Your task to perform on an android device: Search for macbook pro 15 inch on ebay.com, select the first entry, add it to the cart, then select checkout. Image 0: 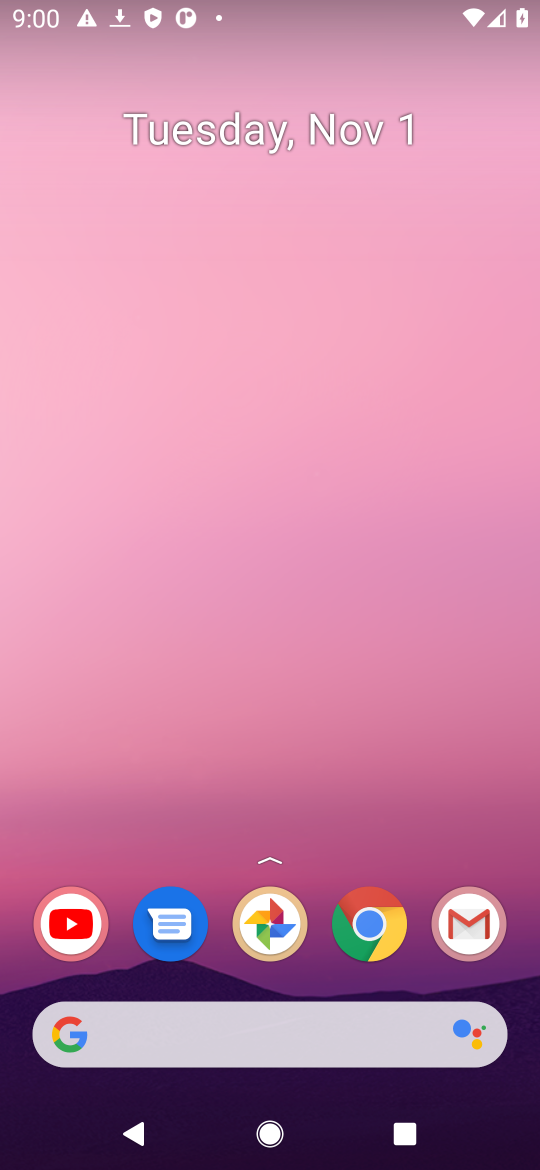
Step 0: click (371, 926)
Your task to perform on an android device: Search for macbook pro 15 inch on ebay.com, select the first entry, add it to the cart, then select checkout. Image 1: 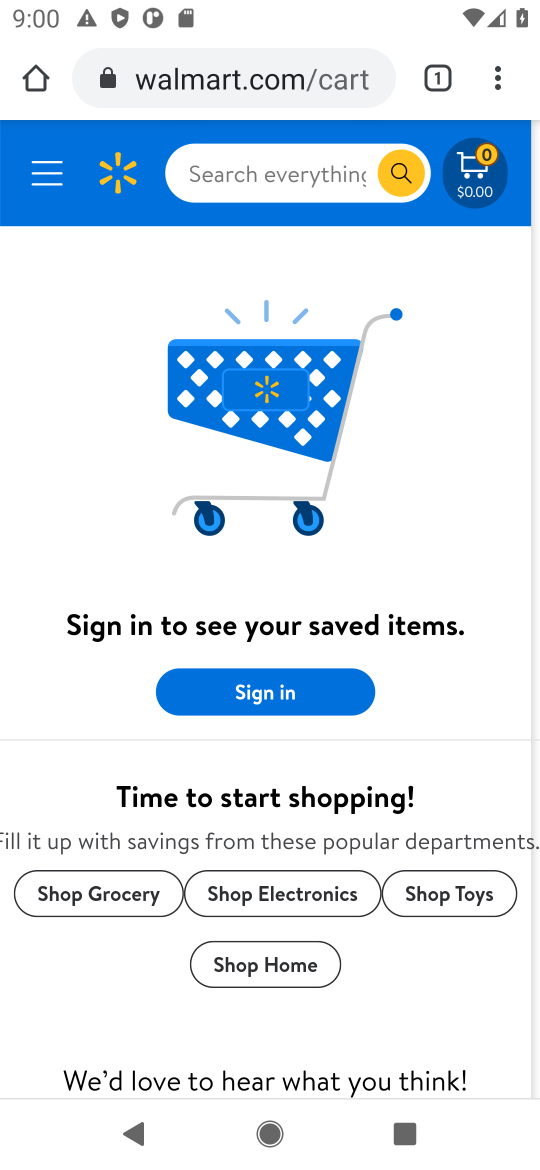
Step 1: click (291, 75)
Your task to perform on an android device: Search for macbook pro 15 inch on ebay.com, select the first entry, add it to the cart, then select checkout. Image 2: 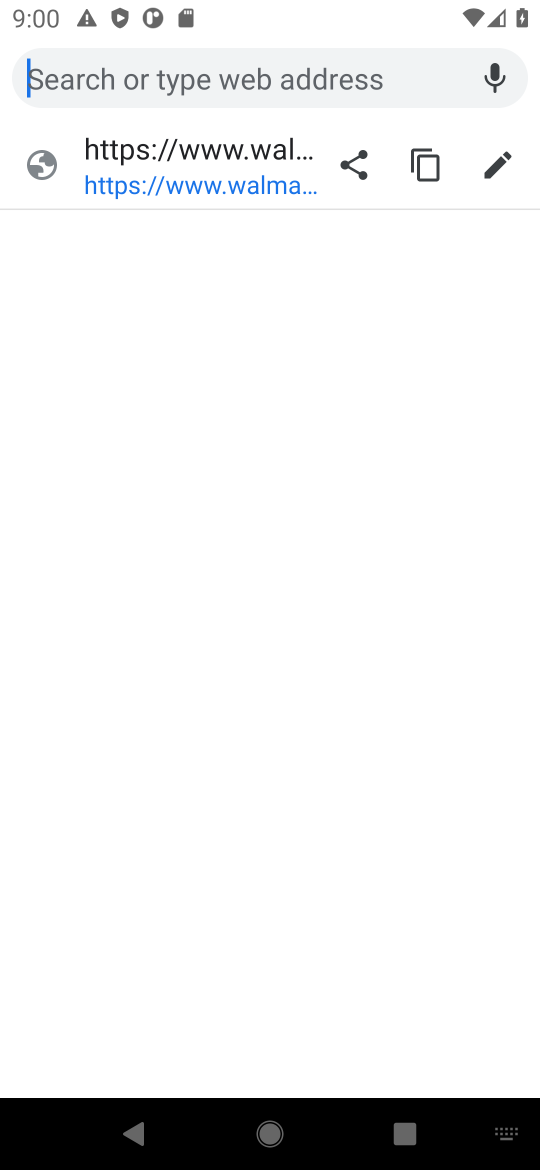
Step 2: type "ebay"
Your task to perform on an android device: Search for macbook pro 15 inch on ebay.com, select the first entry, add it to the cart, then select checkout. Image 3: 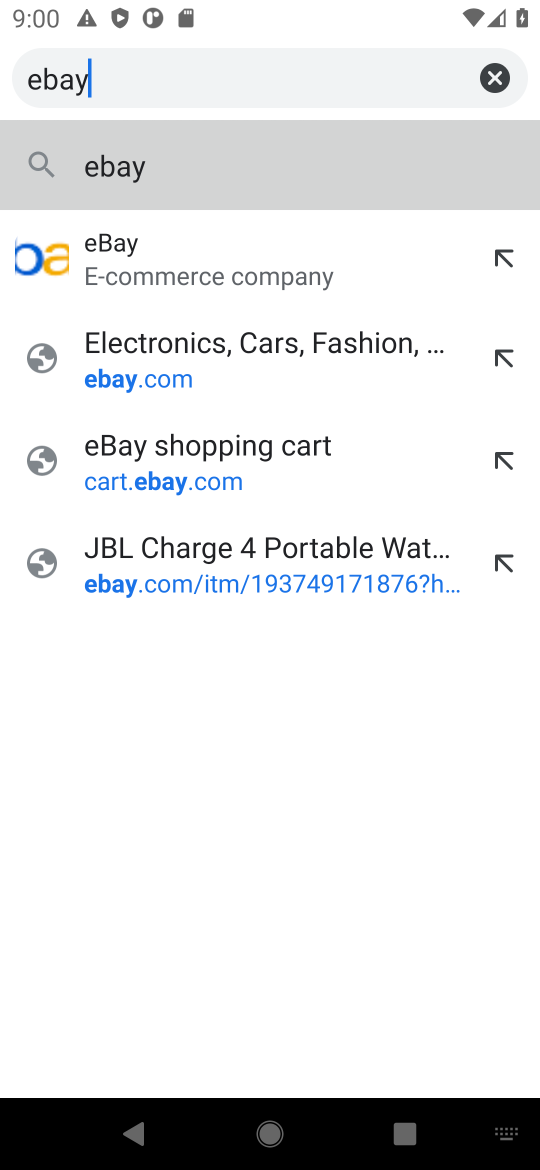
Step 3: click (163, 173)
Your task to perform on an android device: Search for macbook pro 15 inch on ebay.com, select the first entry, add it to the cart, then select checkout. Image 4: 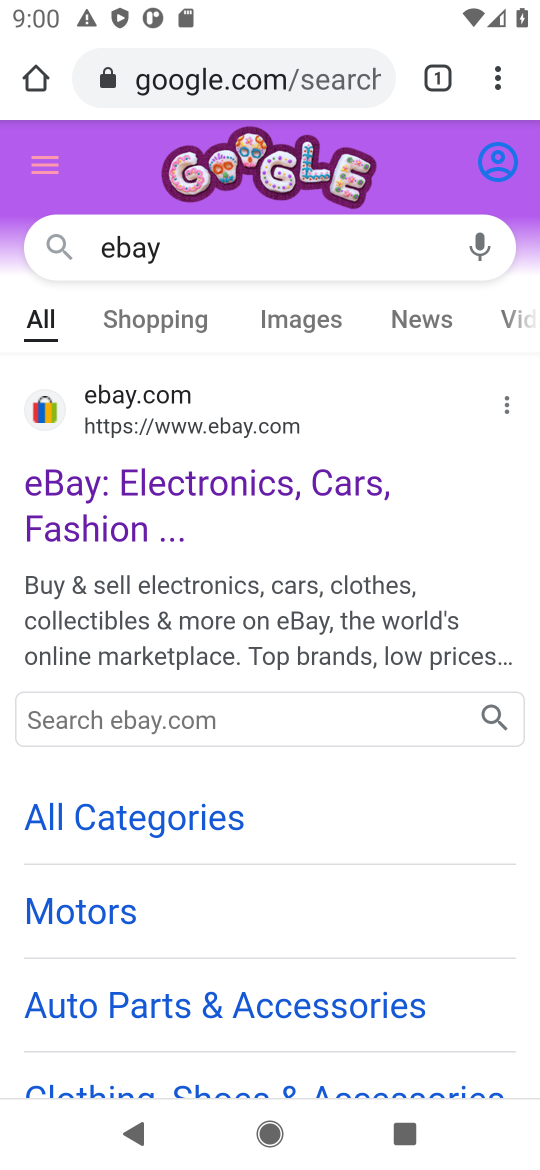
Step 4: click (59, 468)
Your task to perform on an android device: Search for macbook pro 15 inch on ebay.com, select the first entry, add it to the cart, then select checkout. Image 5: 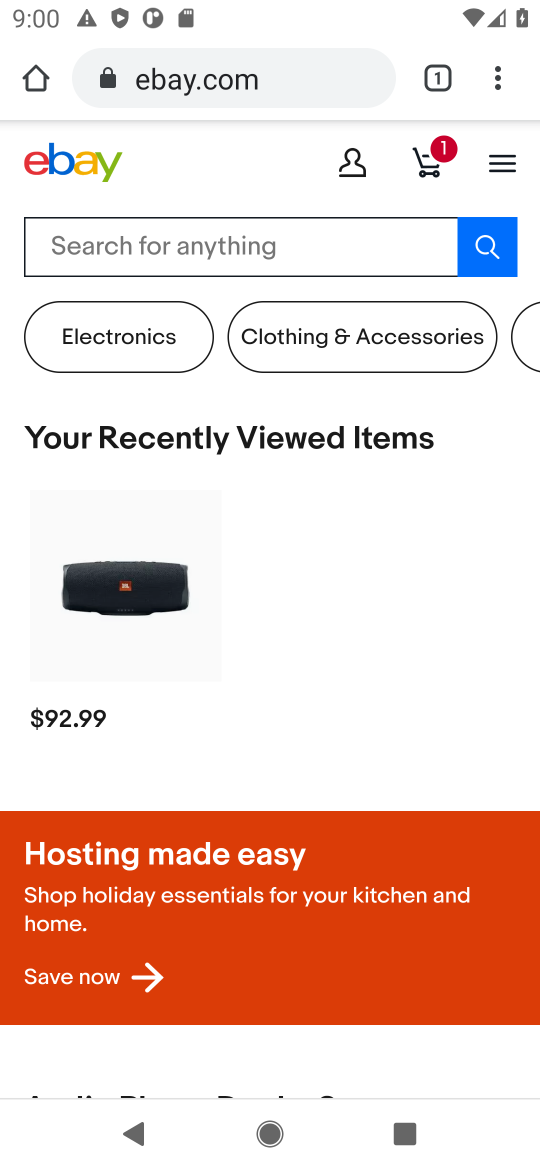
Step 5: click (148, 256)
Your task to perform on an android device: Search for macbook pro 15 inch on ebay.com, select the first entry, add it to the cart, then select checkout. Image 6: 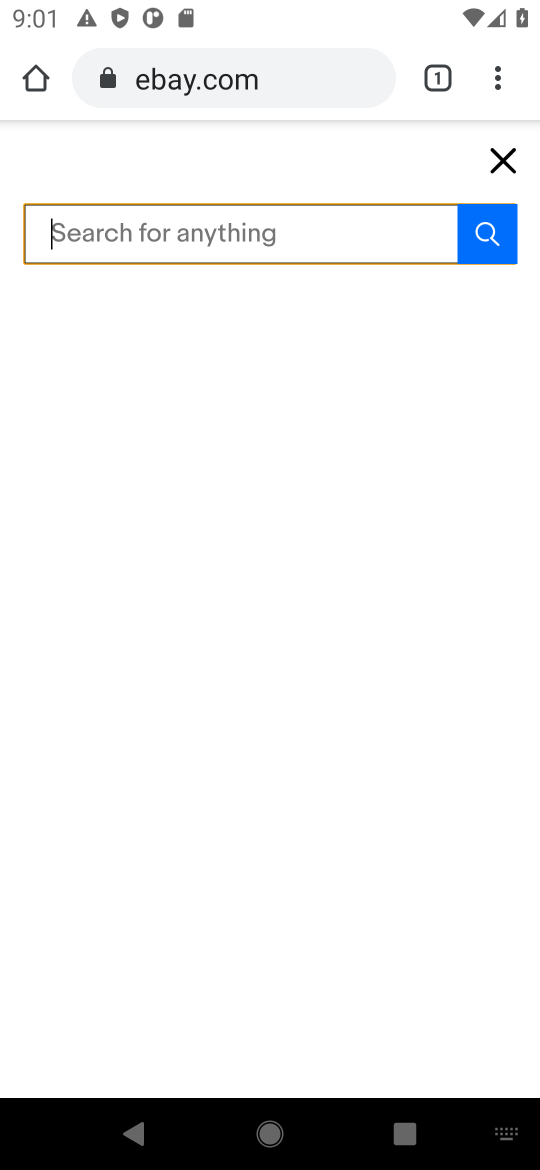
Step 6: type "macbook pro 15 inch"
Your task to perform on an android device: Search for macbook pro 15 inch on ebay.com, select the first entry, add it to the cart, then select checkout. Image 7: 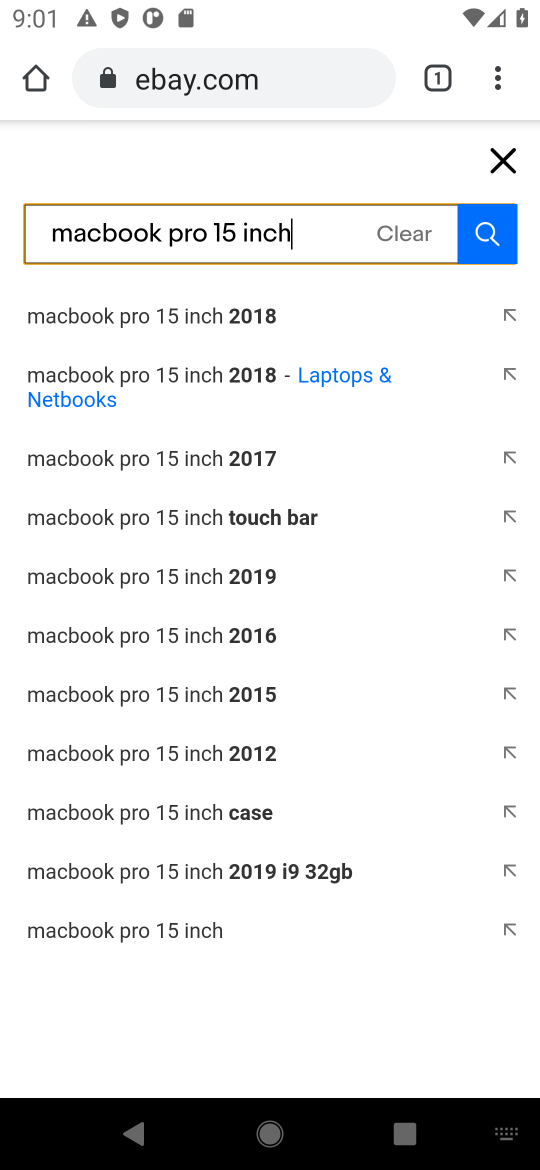
Step 7: press enter
Your task to perform on an android device: Search for macbook pro 15 inch on ebay.com, select the first entry, add it to the cart, then select checkout. Image 8: 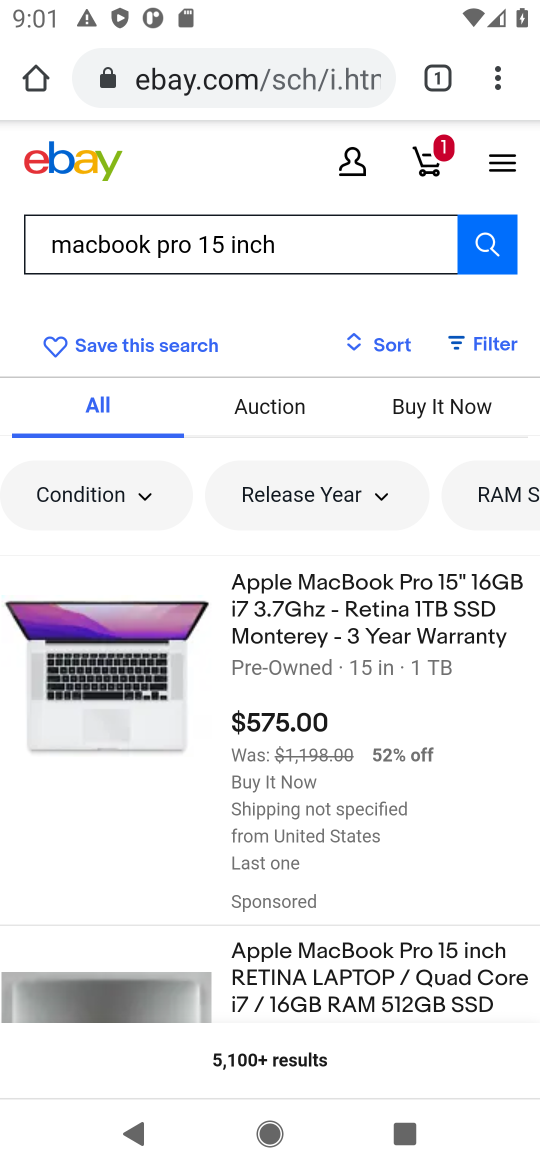
Step 8: click (386, 601)
Your task to perform on an android device: Search for macbook pro 15 inch on ebay.com, select the first entry, add it to the cart, then select checkout. Image 9: 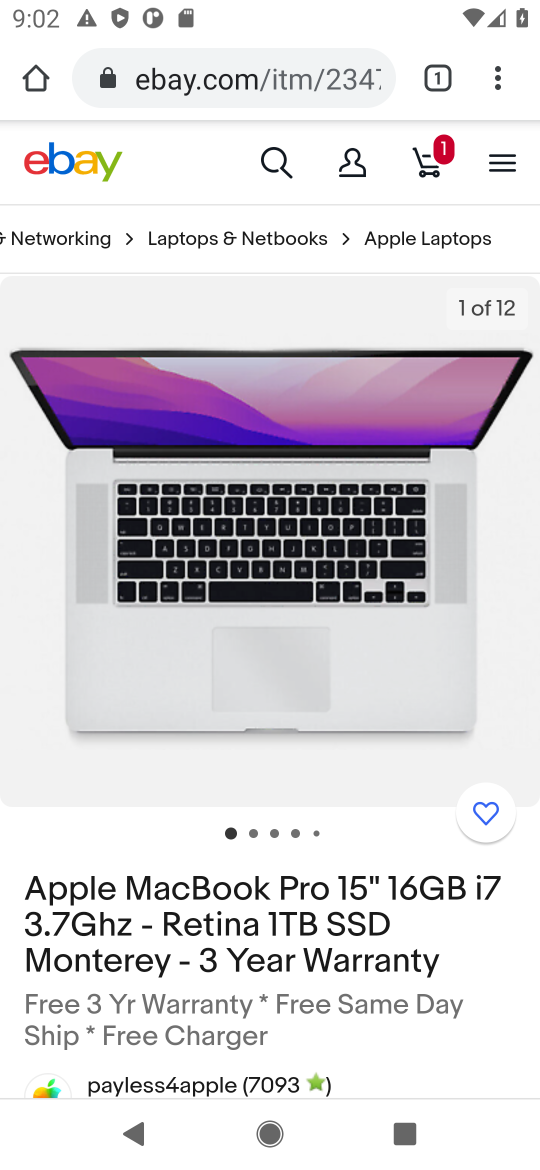
Step 9: drag from (455, 1031) to (329, 568)
Your task to perform on an android device: Search for macbook pro 15 inch on ebay.com, select the first entry, add it to the cart, then select checkout. Image 10: 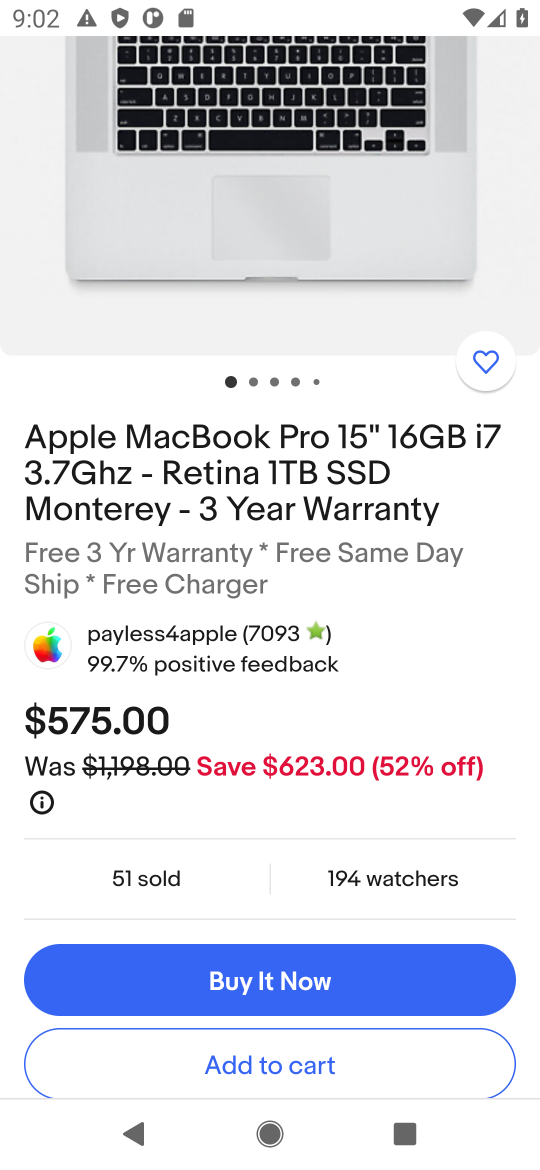
Step 10: click (257, 1057)
Your task to perform on an android device: Search for macbook pro 15 inch on ebay.com, select the first entry, add it to the cart, then select checkout. Image 11: 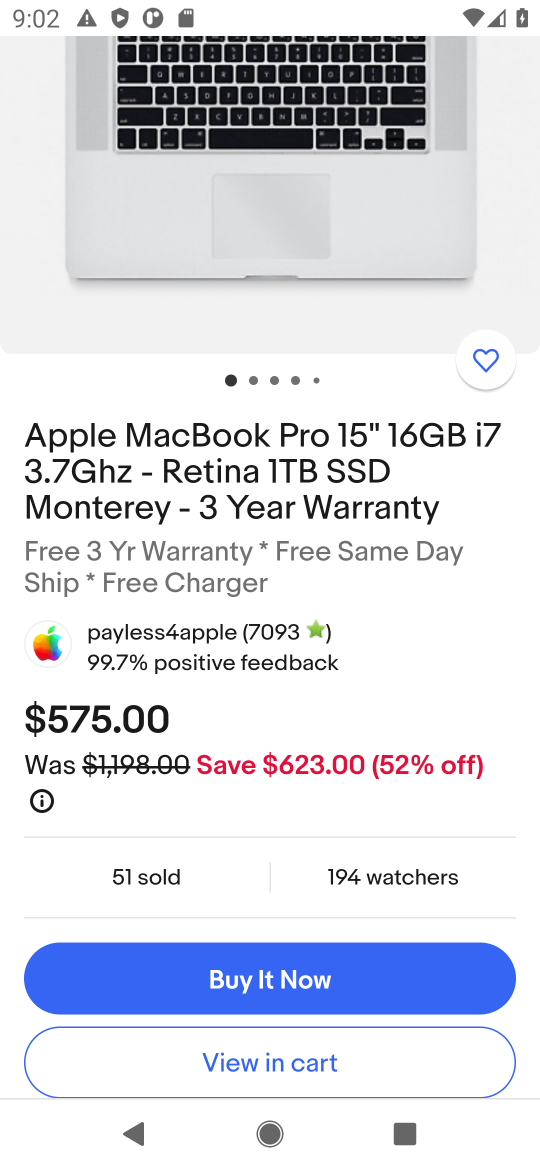
Step 11: click (290, 1071)
Your task to perform on an android device: Search for macbook pro 15 inch on ebay.com, select the first entry, add it to the cart, then select checkout. Image 12: 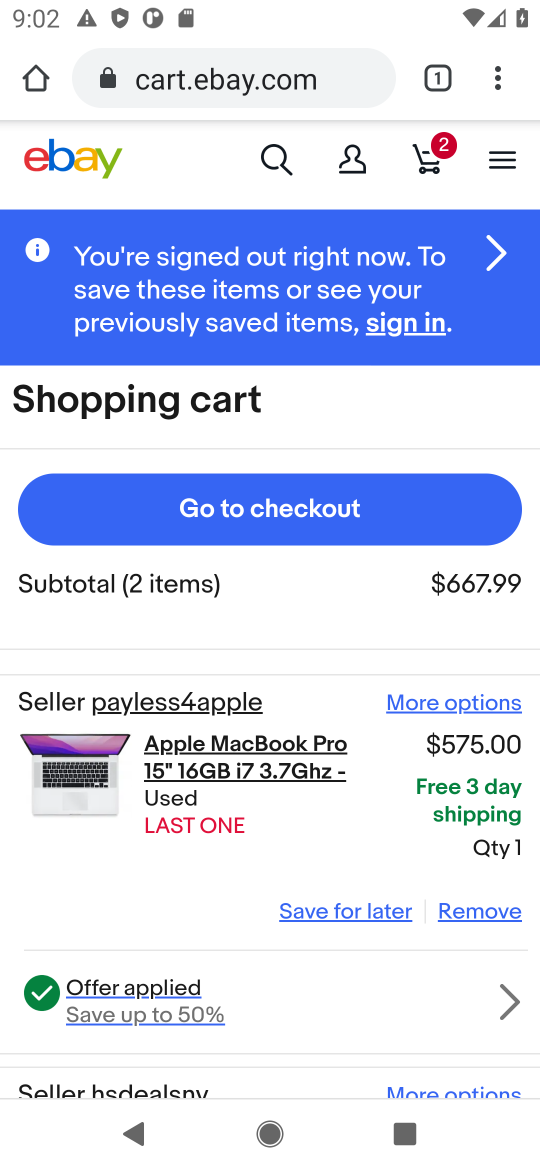
Step 12: click (327, 523)
Your task to perform on an android device: Search for macbook pro 15 inch on ebay.com, select the first entry, add it to the cart, then select checkout. Image 13: 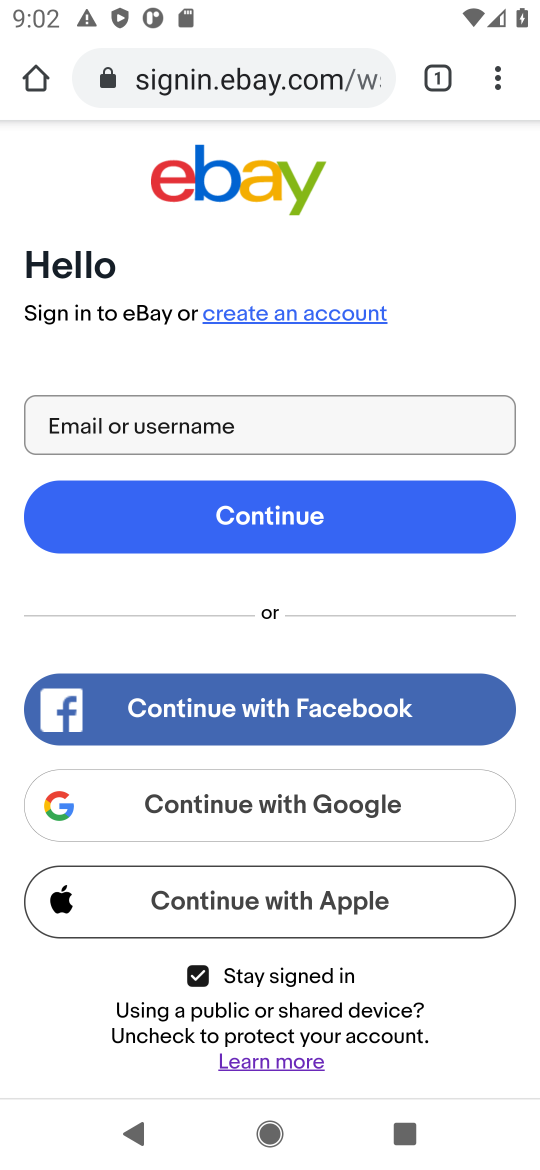
Step 13: task complete